Your task to perform on an android device: Open eBay Image 0: 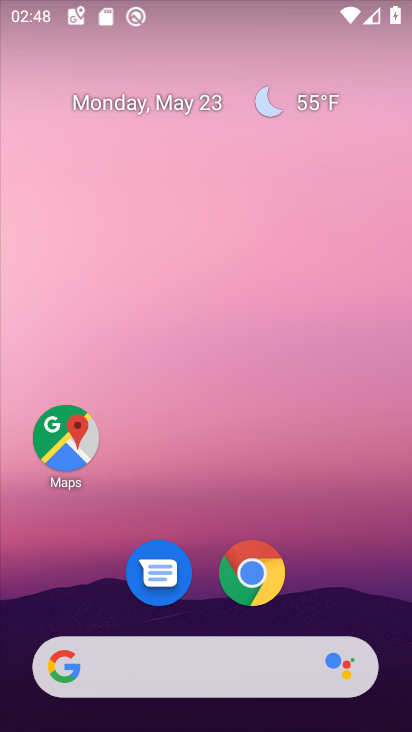
Step 0: click (252, 569)
Your task to perform on an android device: Open eBay Image 1: 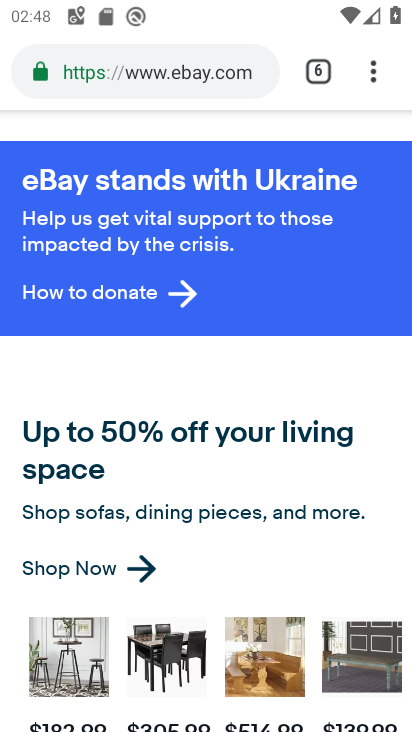
Step 1: task complete